Your task to perform on an android device: change the upload size in google photos Image 0: 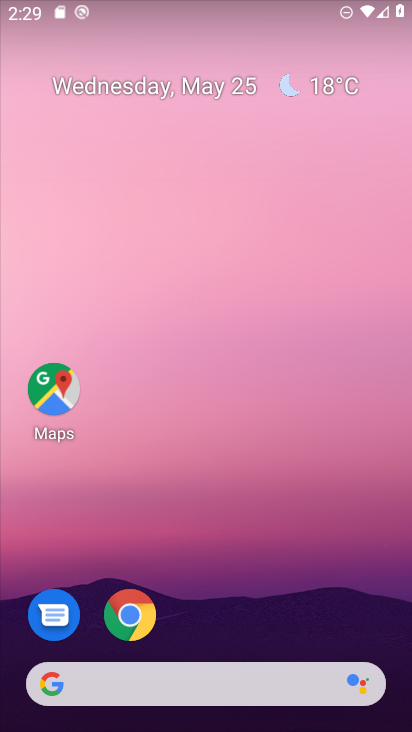
Step 0: drag from (254, 577) to (252, 0)
Your task to perform on an android device: change the upload size in google photos Image 1: 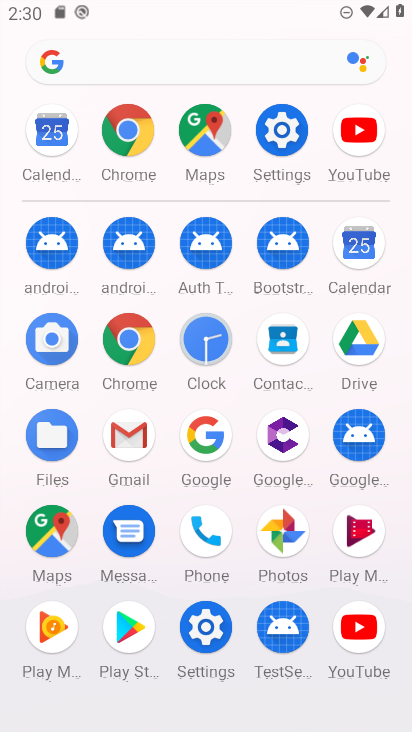
Step 1: click (282, 524)
Your task to perform on an android device: change the upload size in google photos Image 2: 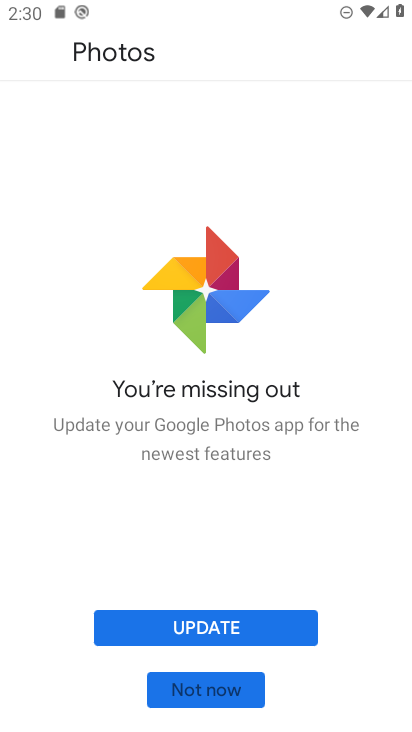
Step 2: click (237, 678)
Your task to perform on an android device: change the upload size in google photos Image 3: 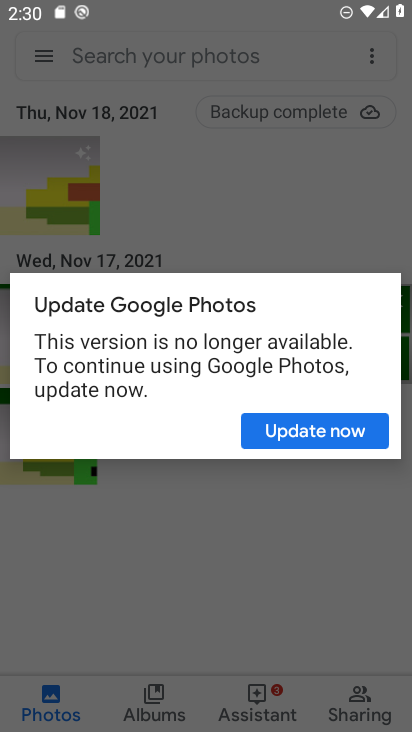
Step 3: click (310, 430)
Your task to perform on an android device: change the upload size in google photos Image 4: 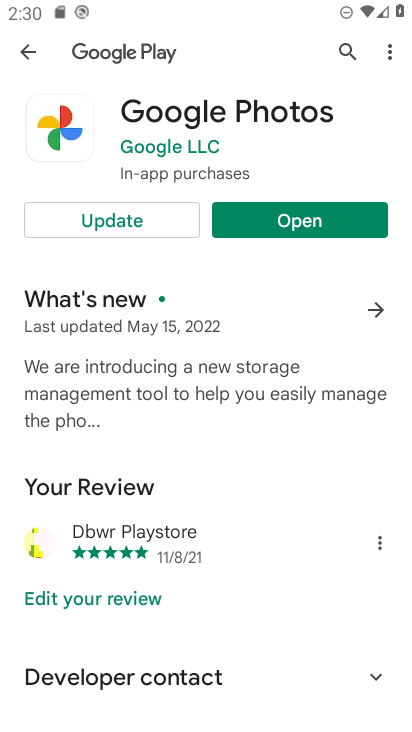
Step 4: click (282, 214)
Your task to perform on an android device: change the upload size in google photos Image 5: 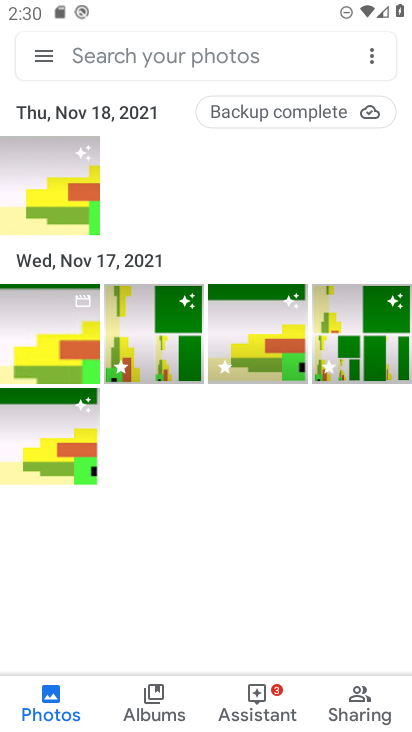
Step 5: click (45, 52)
Your task to perform on an android device: change the upload size in google photos Image 6: 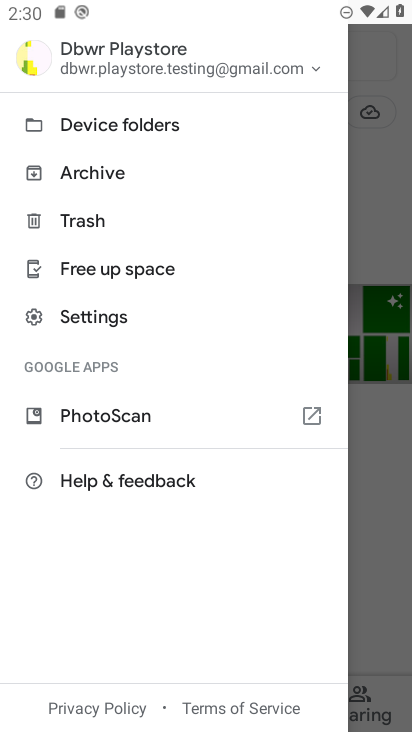
Step 6: click (92, 316)
Your task to perform on an android device: change the upload size in google photos Image 7: 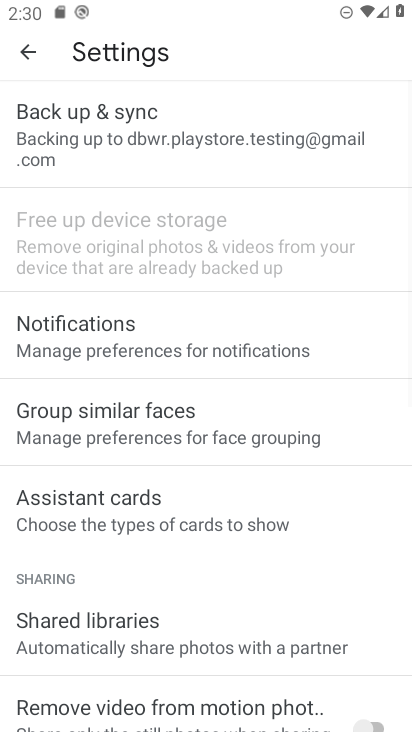
Step 7: click (177, 117)
Your task to perform on an android device: change the upload size in google photos Image 8: 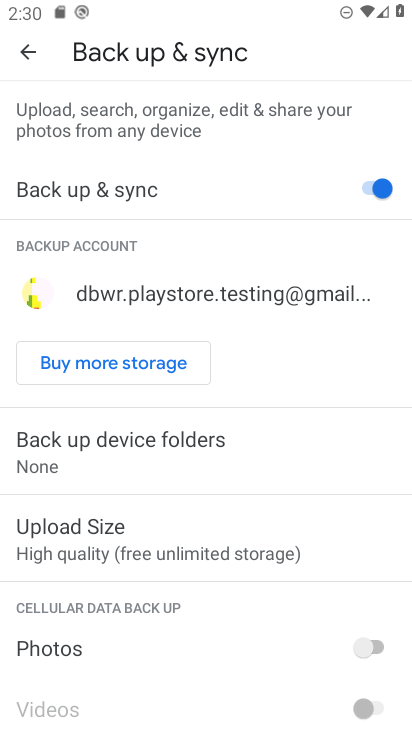
Step 8: click (151, 535)
Your task to perform on an android device: change the upload size in google photos Image 9: 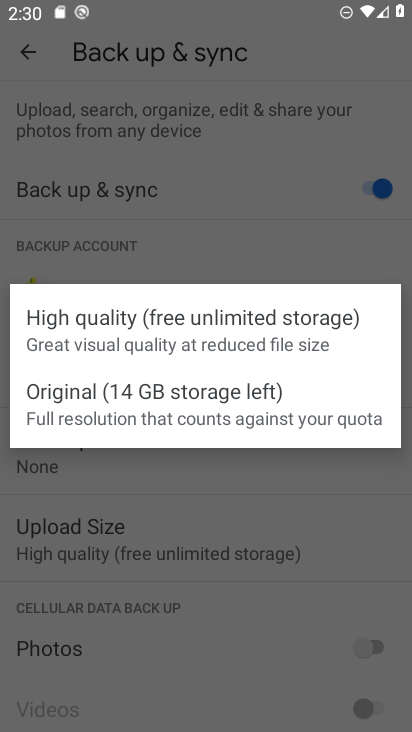
Step 9: click (182, 401)
Your task to perform on an android device: change the upload size in google photos Image 10: 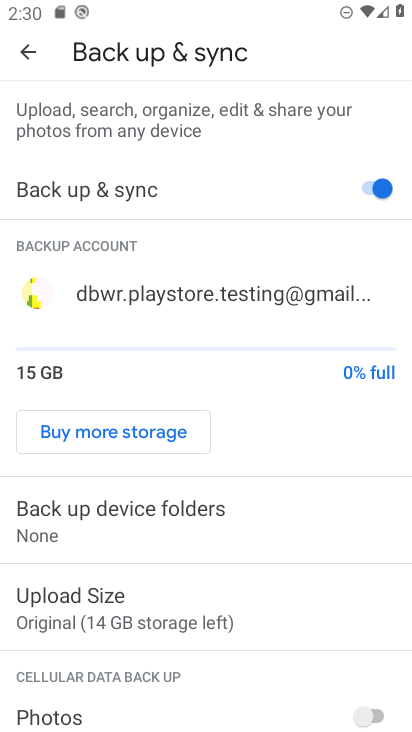
Step 10: task complete